Your task to perform on an android device: star an email in the gmail app Image 0: 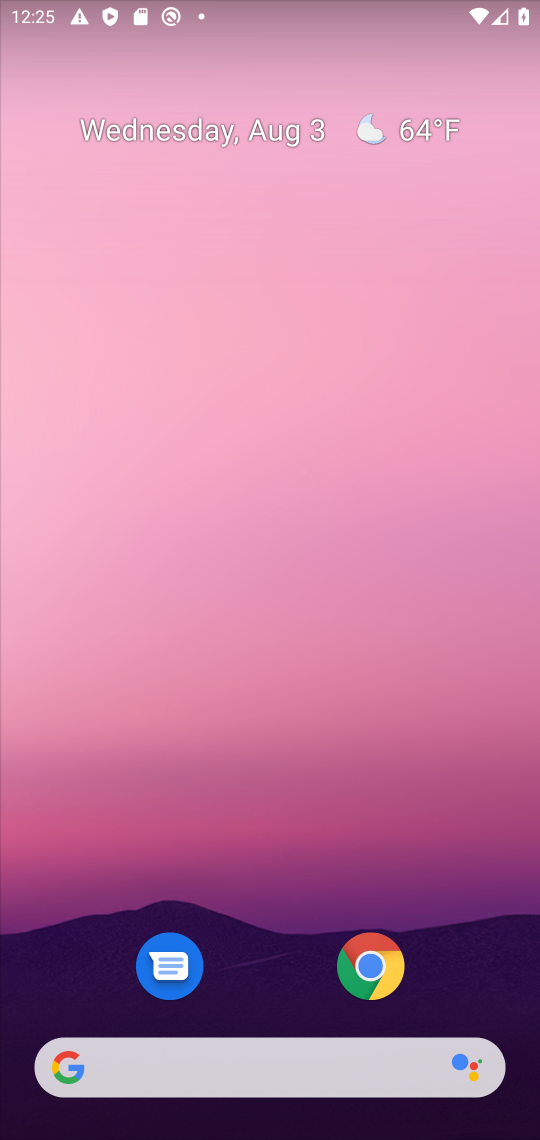
Step 0: press back button
Your task to perform on an android device: star an email in the gmail app Image 1: 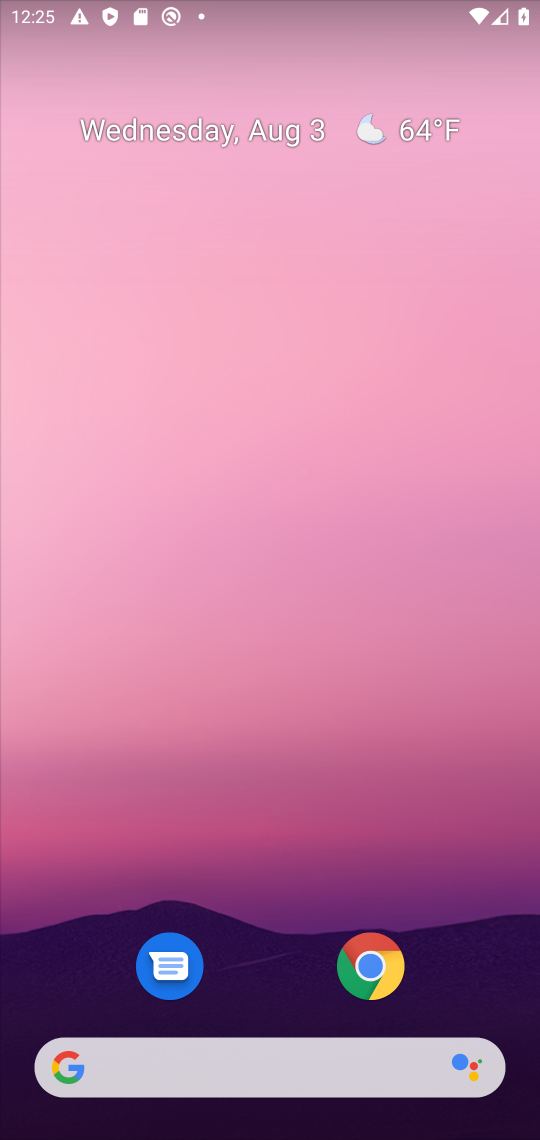
Step 1: drag from (274, 986) to (294, 315)
Your task to perform on an android device: star an email in the gmail app Image 2: 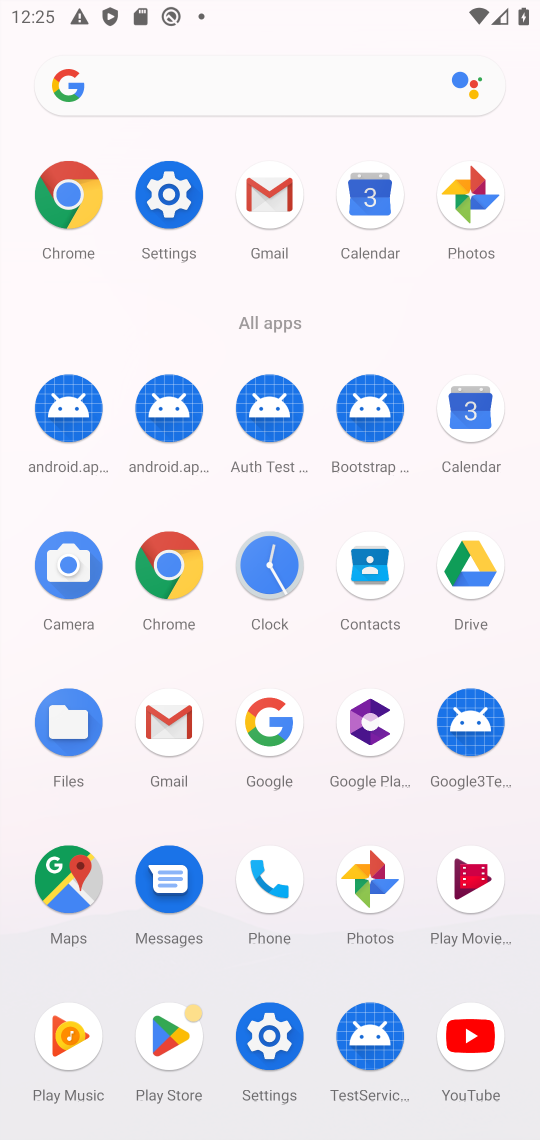
Step 2: click (250, 210)
Your task to perform on an android device: star an email in the gmail app Image 3: 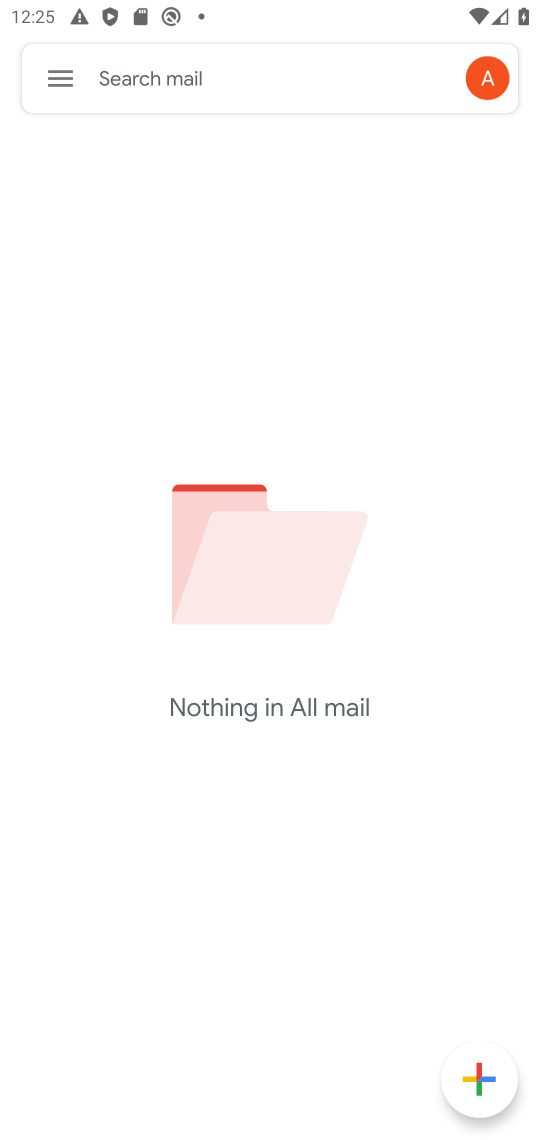
Step 3: click (67, 82)
Your task to perform on an android device: star an email in the gmail app Image 4: 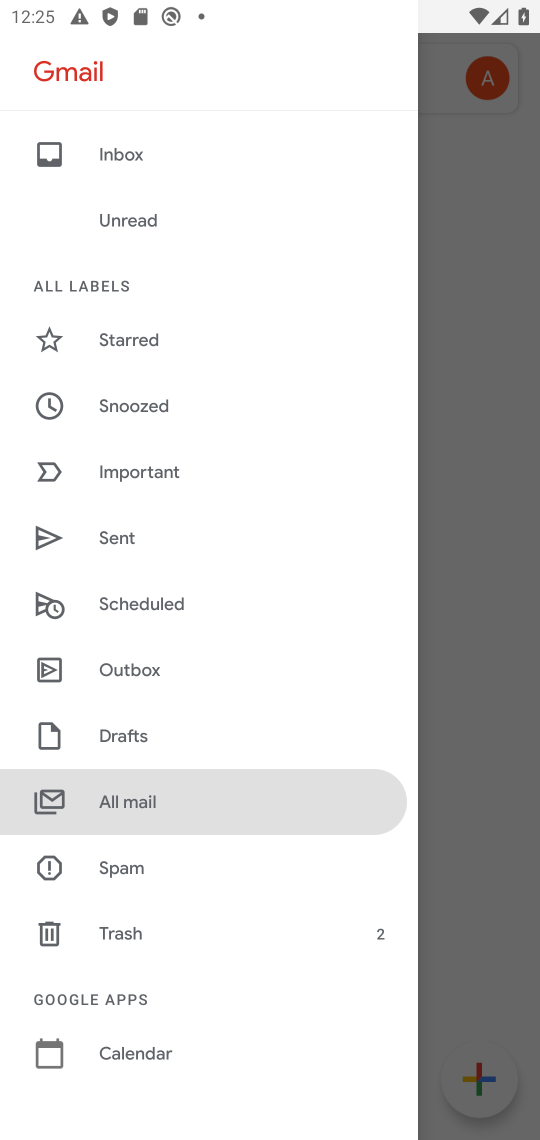
Step 4: click (151, 798)
Your task to perform on an android device: star an email in the gmail app Image 5: 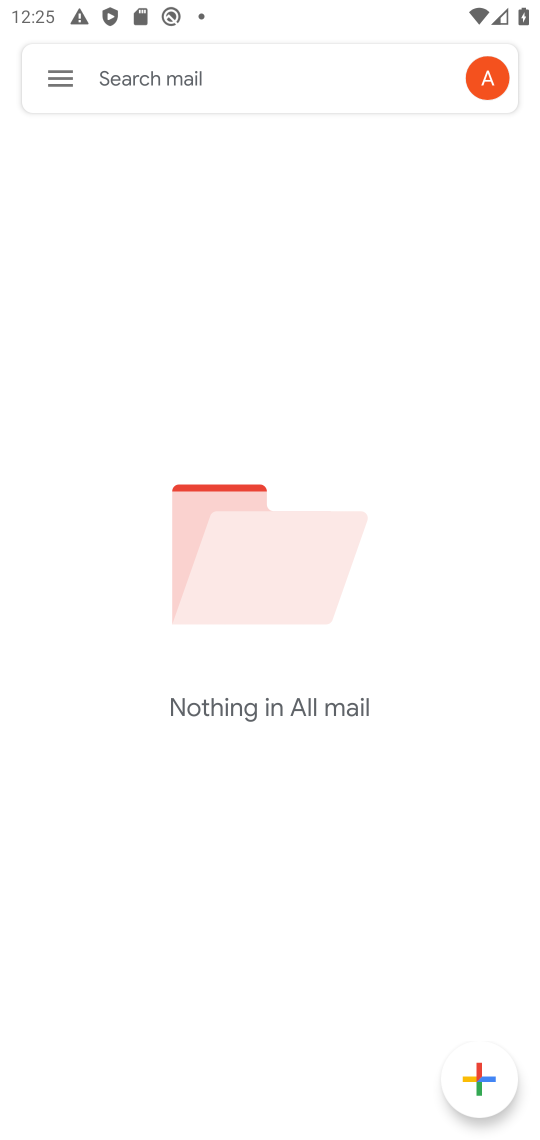
Step 5: task complete